Your task to perform on an android device: turn off improve location accuracy Image 0: 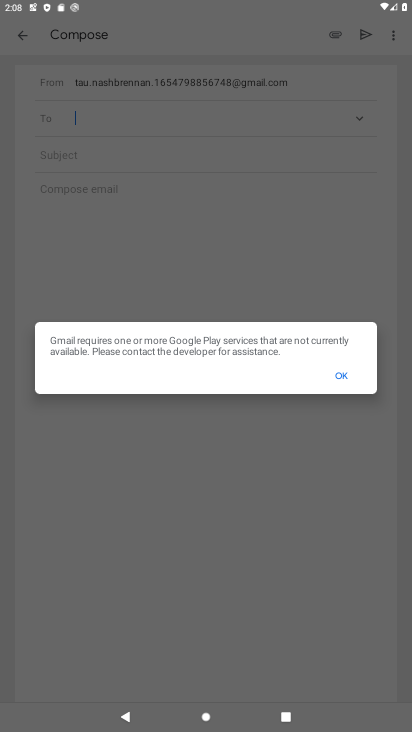
Step 0: press home button
Your task to perform on an android device: turn off improve location accuracy Image 1: 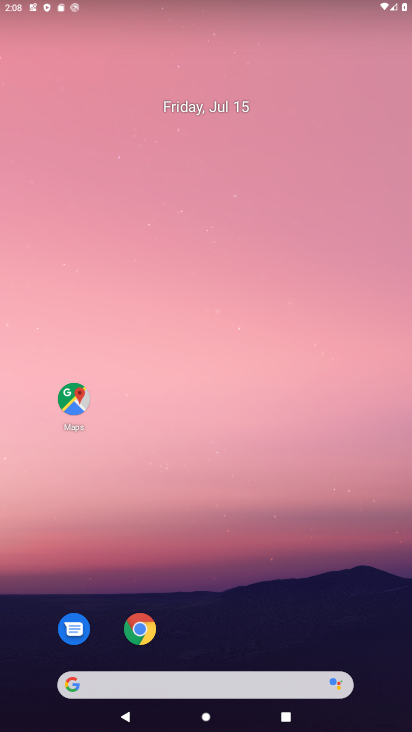
Step 1: drag from (259, 624) to (294, 134)
Your task to perform on an android device: turn off improve location accuracy Image 2: 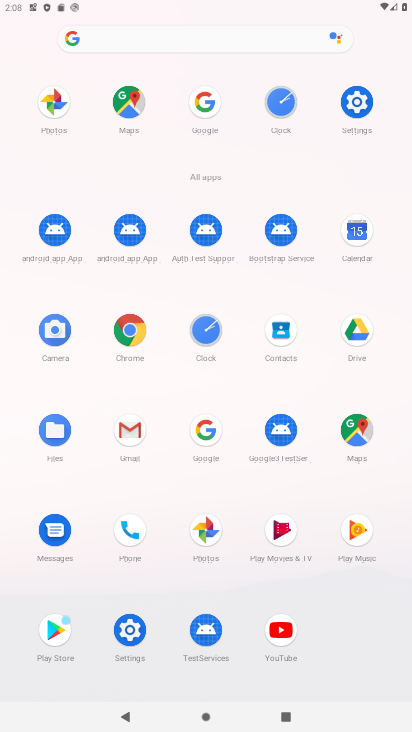
Step 2: click (362, 102)
Your task to perform on an android device: turn off improve location accuracy Image 3: 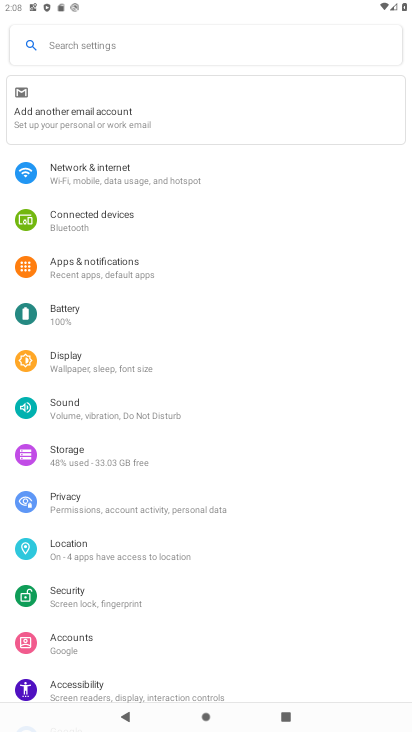
Step 3: drag from (163, 576) to (160, 361)
Your task to perform on an android device: turn off improve location accuracy Image 4: 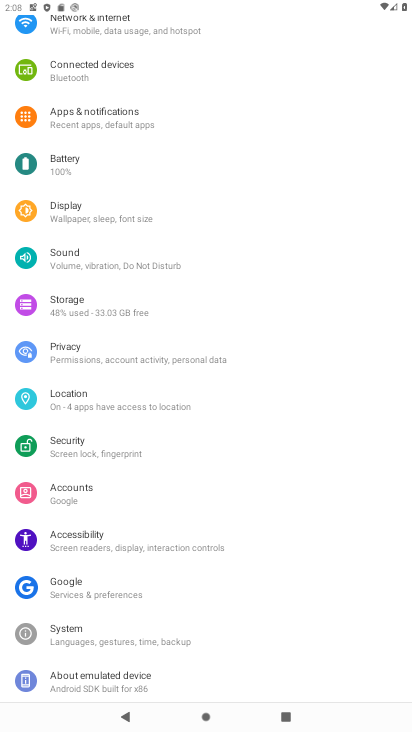
Step 4: click (120, 382)
Your task to perform on an android device: turn off improve location accuracy Image 5: 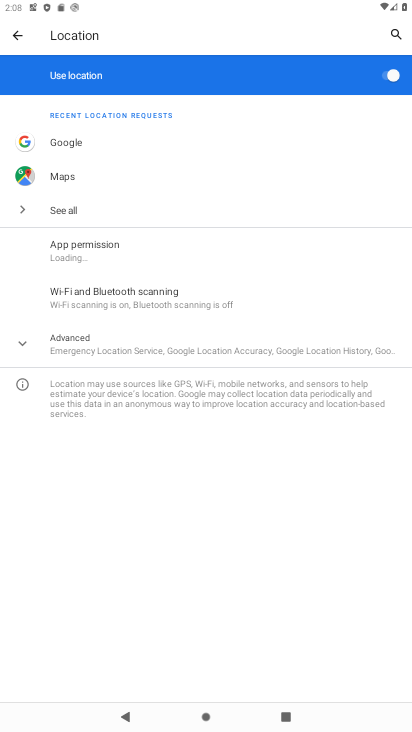
Step 5: click (108, 347)
Your task to perform on an android device: turn off improve location accuracy Image 6: 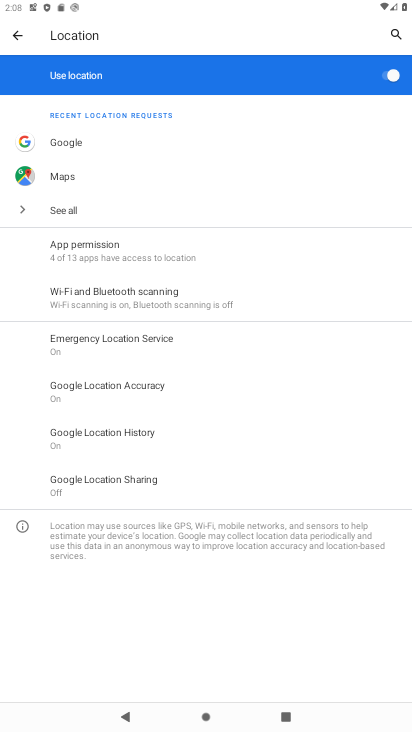
Step 6: click (100, 384)
Your task to perform on an android device: turn off improve location accuracy Image 7: 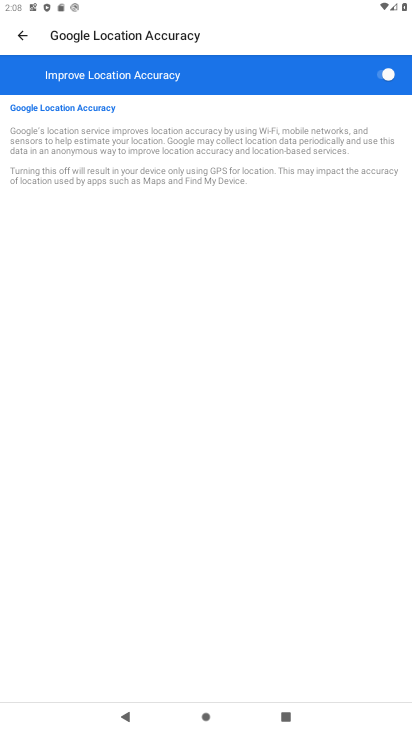
Step 7: click (385, 74)
Your task to perform on an android device: turn off improve location accuracy Image 8: 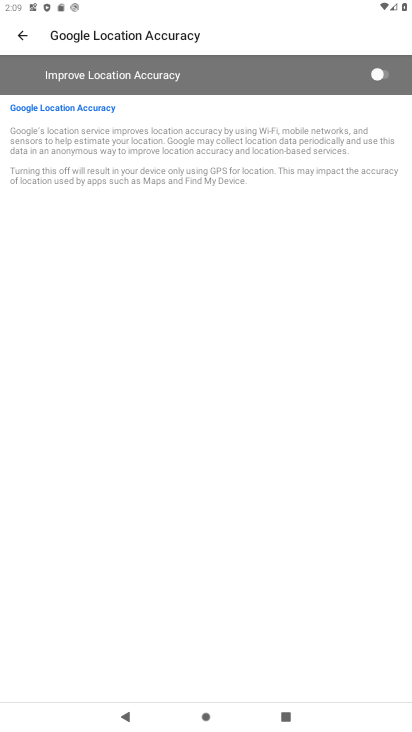
Step 8: task complete